Your task to perform on an android device: Open calendar and show me the fourth week of next month Image 0: 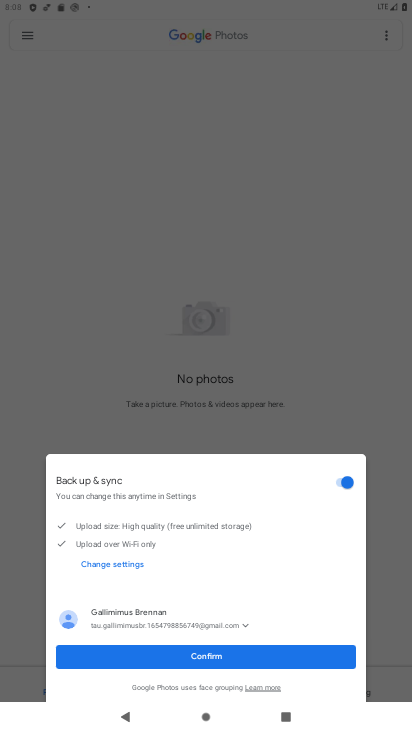
Step 0: press home button
Your task to perform on an android device: Open calendar and show me the fourth week of next month Image 1: 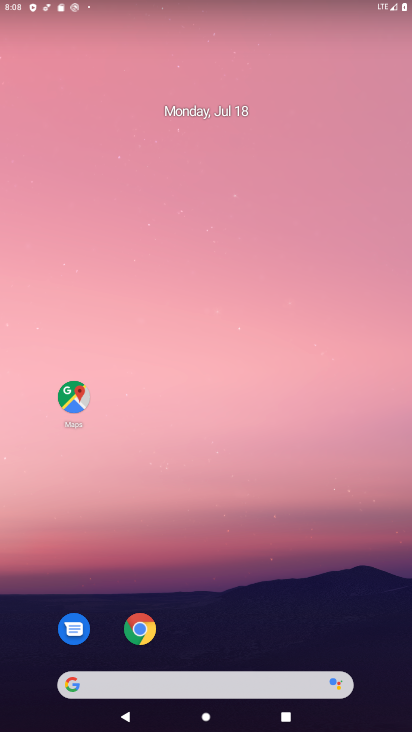
Step 1: drag from (205, 546) to (97, 13)
Your task to perform on an android device: Open calendar and show me the fourth week of next month Image 2: 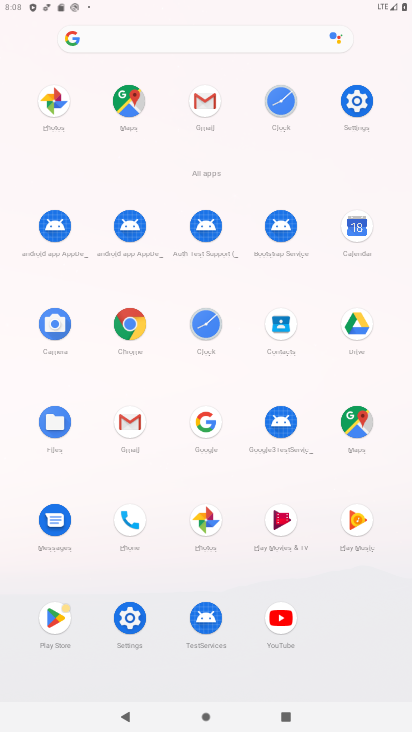
Step 2: click (359, 235)
Your task to perform on an android device: Open calendar and show me the fourth week of next month Image 3: 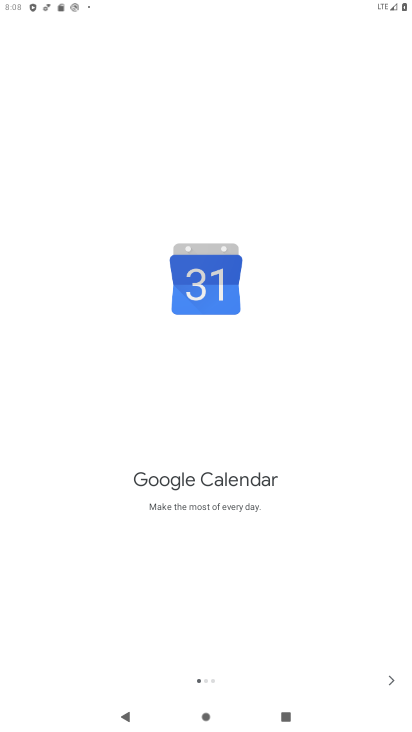
Step 3: click (392, 683)
Your task to perform on an android device: Open calendar and show me the fourth week of next month Image 4: 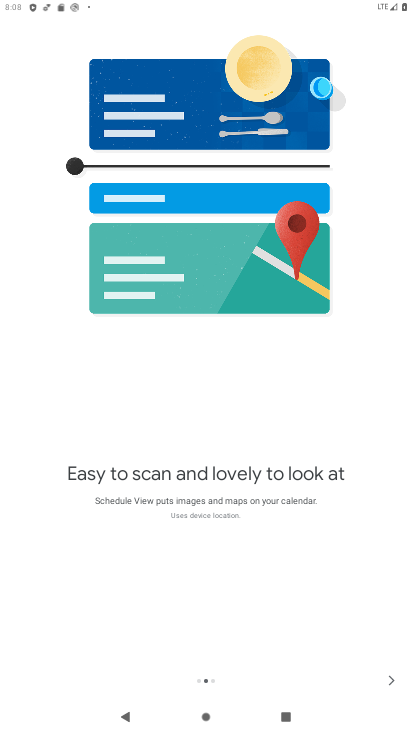
Step 4: click (392, 683)
Your task to perform on an android device: Open calendar and show me the fourth week of next month Image 5: 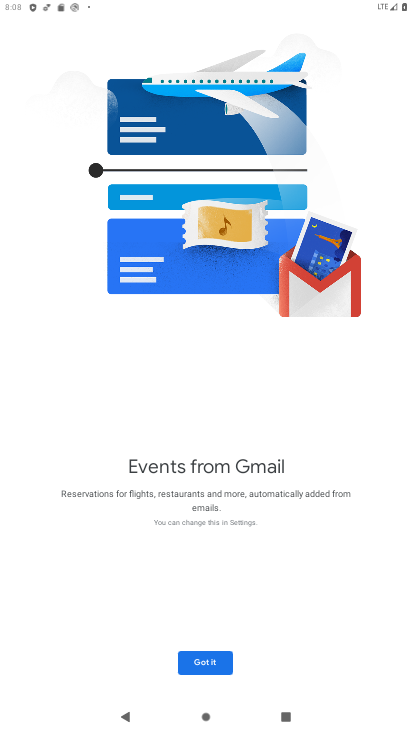
Step 5: click (196, 662)
Your task to perform on an android device: Open calendar and show me the fourth week of next month Image 6: 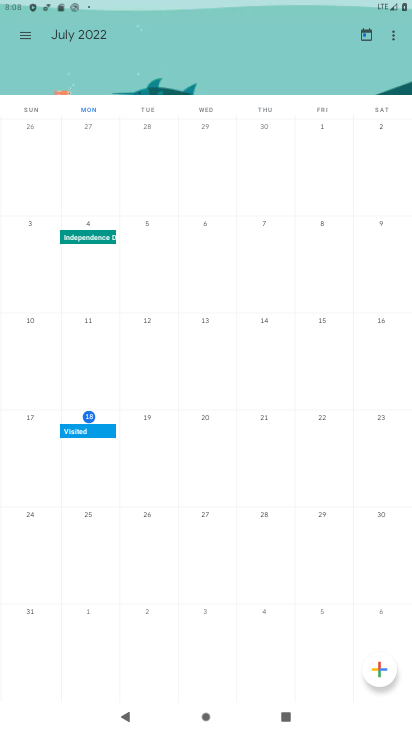
Step 6: drag from (329, 230) to (18, 164)
Your task to perform on an android device: Open calendar and show me the fourth week of next month Image 7: 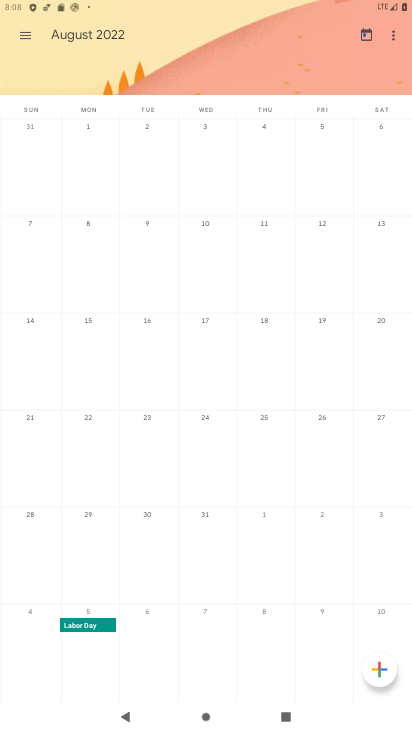
Step 7: drag from (353, 254) to (0, 15)
Your task to perform on an android device: Open calendar and show me the fourth week of next month Image 8: 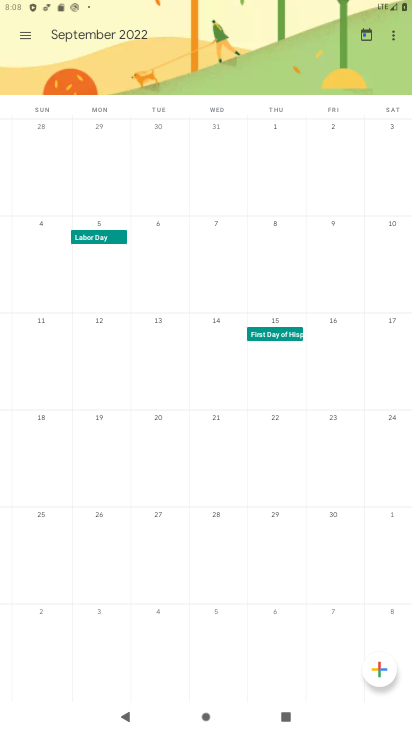
Step 8: click (21, 36)
Your task to perform on an android device: Open calendar and show me the fourth week of next month Image 9: 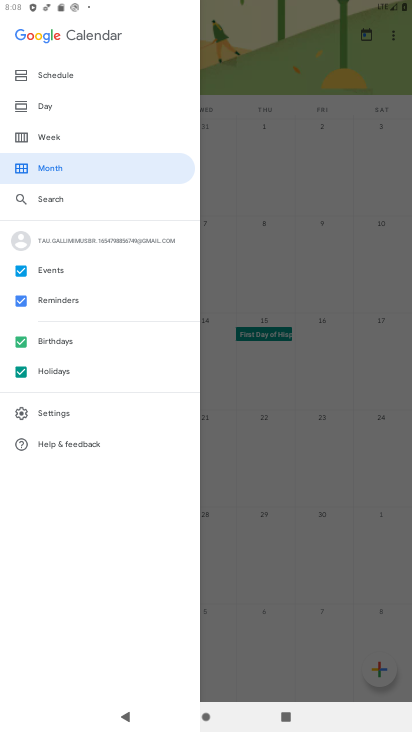
Step 9: click (45, 135)
Your task to perform on an android device: Open calendar and show me the fourth week of next month Image 10: 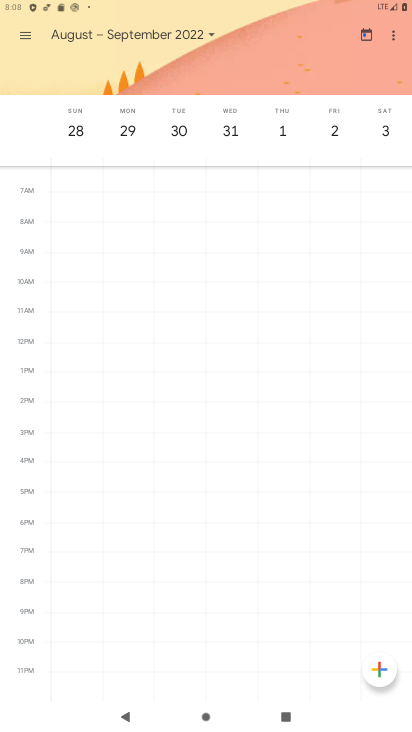
Step 10: task complete